Your task to perform on an android device: turn off improve location accuracy Image 0: 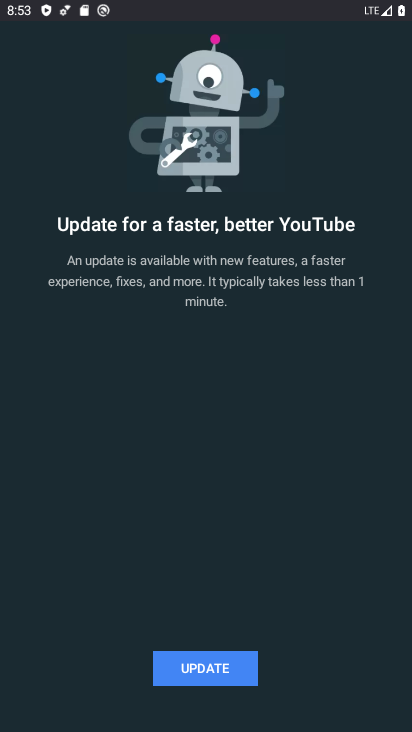
Step 0: press back button
Your task to perform on an android device: turn off improve location accuracy Image 1: 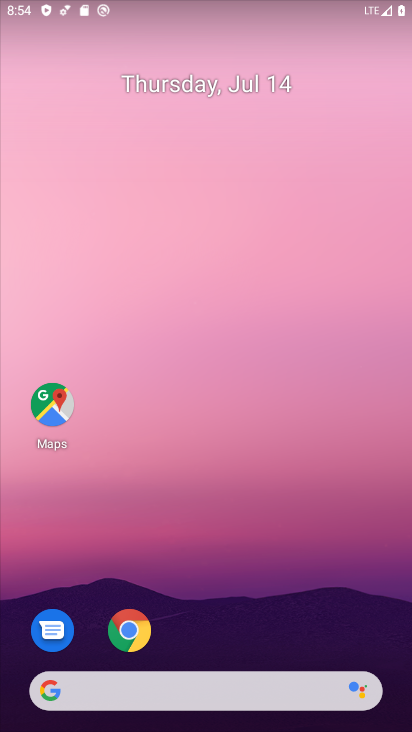
Step 1: drag from (247, 677) to (127, 125)
Your task to perform on an android device: turn off improve location accuracy Image 2: 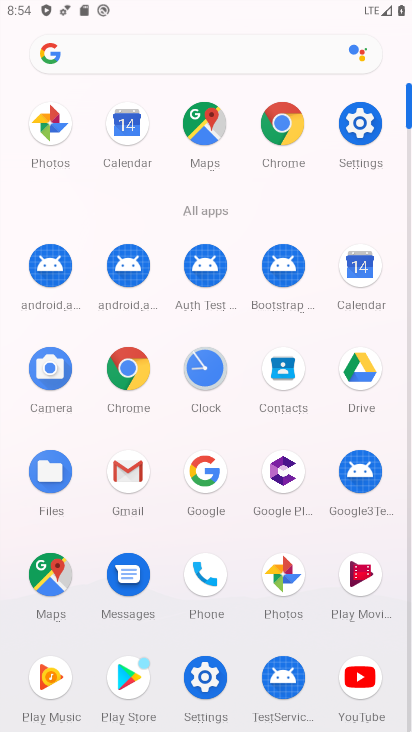
Step 2: click (351, 115)
Your task to perform on an android device: turn off improve location accuracy Image 3: 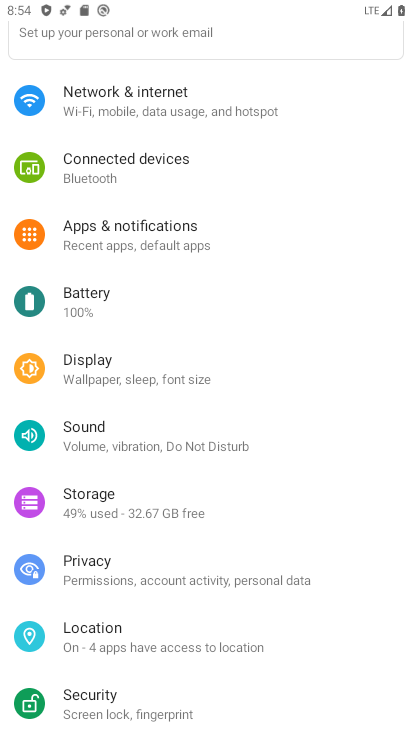
Step 3: click (81, 627)
Your task to perform on an android device: turn off improve location accuracy Image 4: 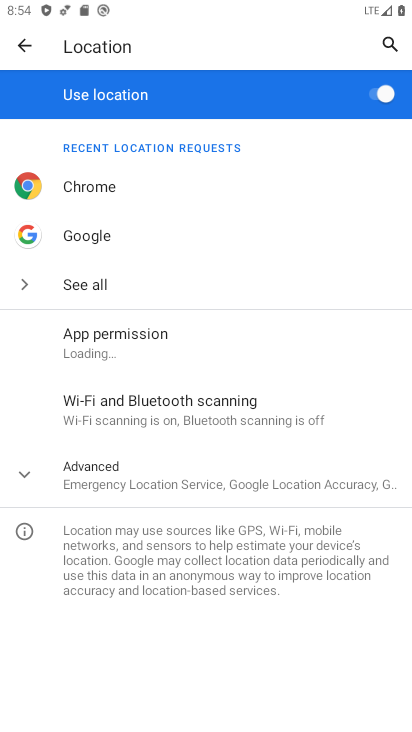
Step 4: click (137, 468)
Your task to perform on an android device: turn off improve location accuracy Image 5: 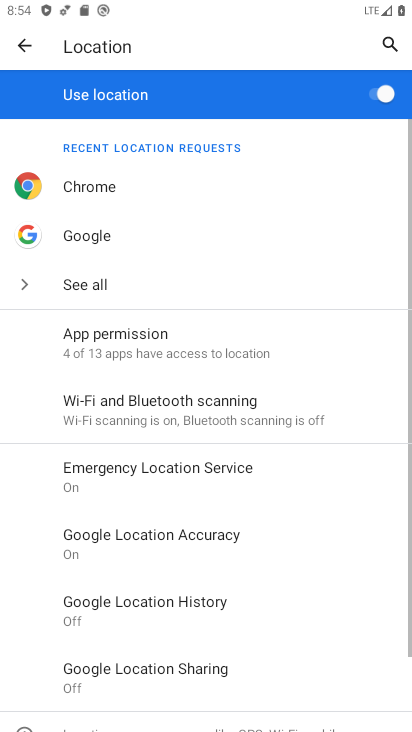
Step 5: click (137, 468)
Your task to perform on an android device: turn off improve location accuracy Image 6: 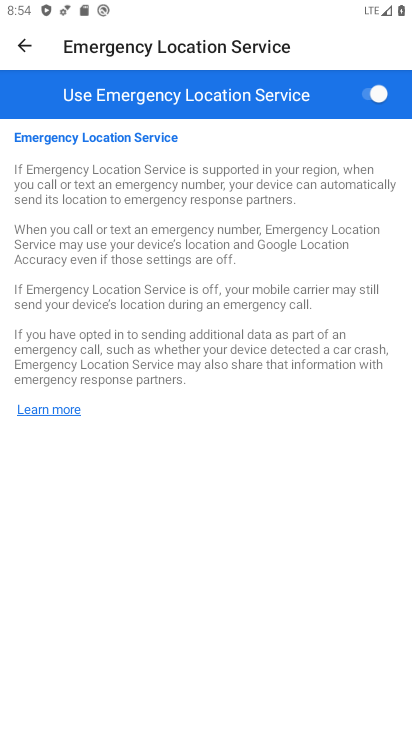
Step 6: click (23, 53)
Your task to perform on an android device: turn off improve location accuracy Image 7: 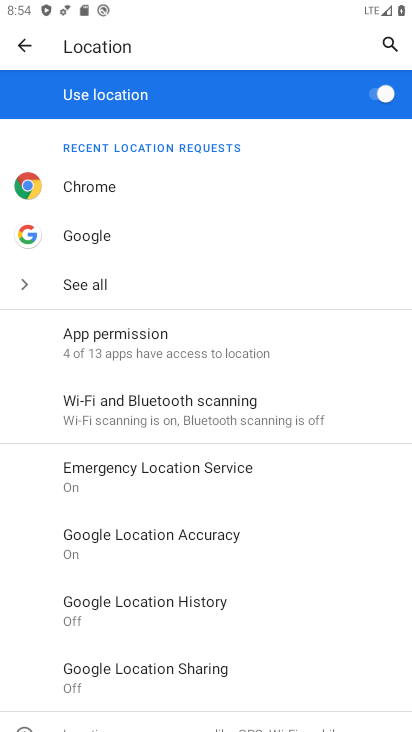
Step 7: click (200, 534)
Your task to perform on an android device: turn off improve location accuracy Image 8: 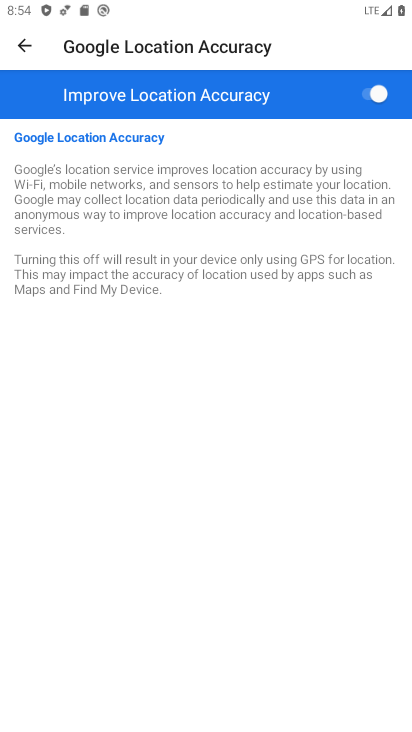
Step 8: click (379, 93)
Your task to perform on an android device: turn off improve location accuracy Image 9: 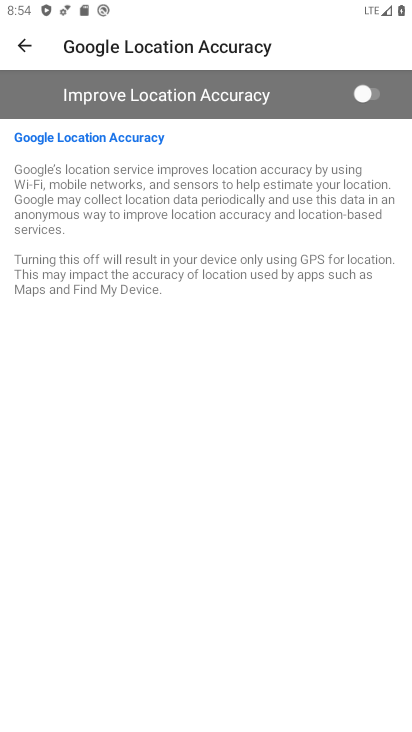
Step 9: task complete